Your task to perform on an android device: Go to internet settings Image 0: 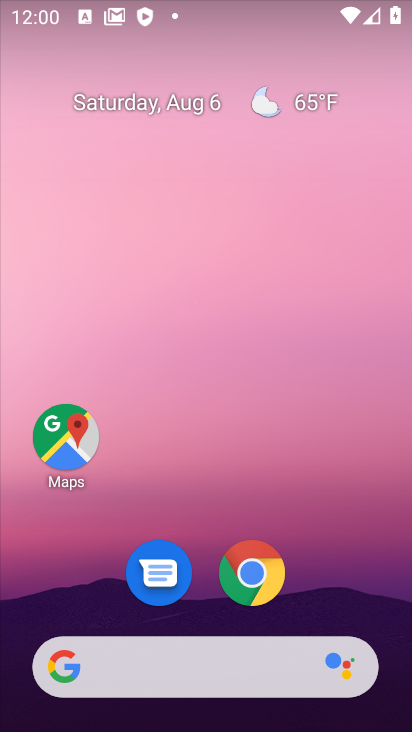
Step 0: drag from (214, 399) to (196, 173)
Your task to perform on an android device: Go to internet settings Image 1: 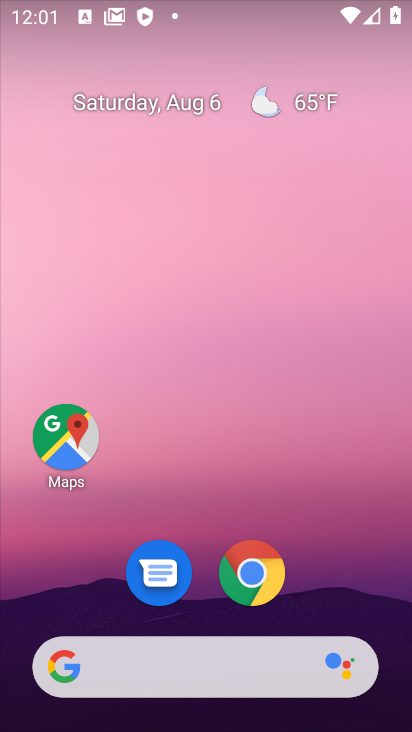
Step 1: drag from (211, 501) to (211, 220)
Your task to perform on an android device: Go to internet settings Image 2: 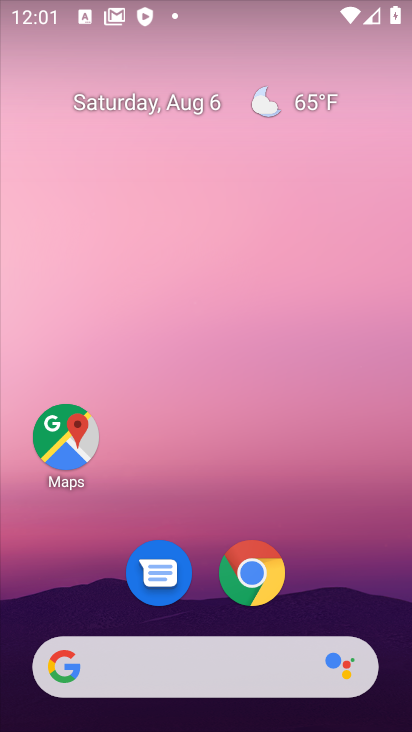
Step 2: drag from (210, 532) to (257, 234)
Your task to perform on an android device: Go to internet settings Image 3: 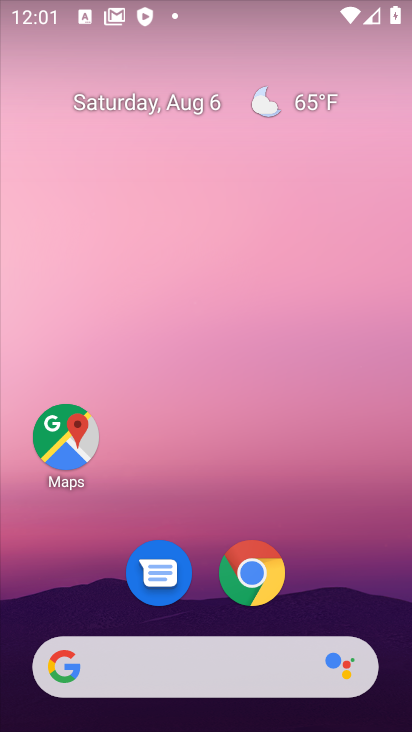
Step 3: drag from (218, 512) to (215, 144)
Your task to perform on an android device: Go to internet settings Image 4: 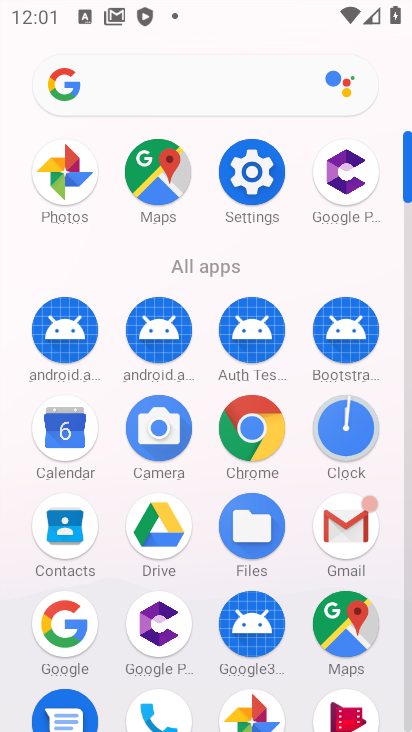
Step 4: click (267, 176)
Your task to perform on an android device: Go to internet settings Image 5: 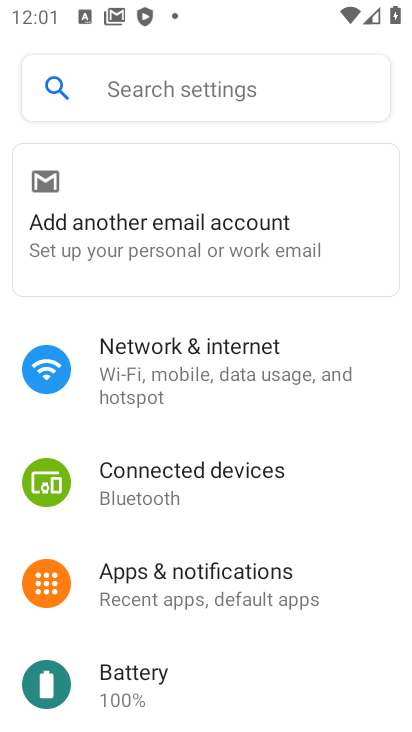
Step 5: task complete